Your task to perform on an android device: Open sound settings Image 0: 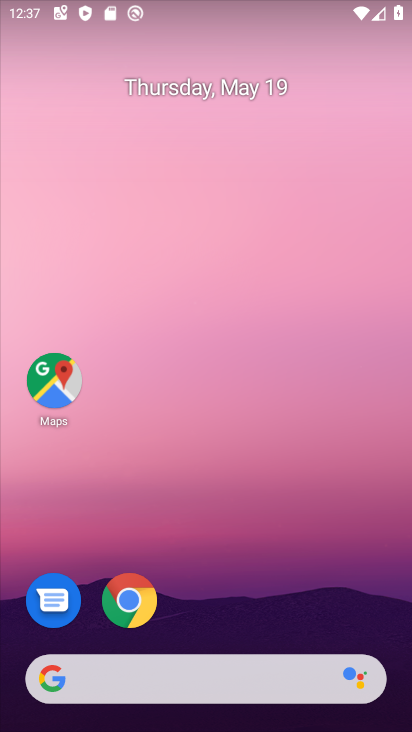
Step 0: drag from (313, 611) to (256, 157)
Your task to perform on an android device: Open sound settings Image 1: 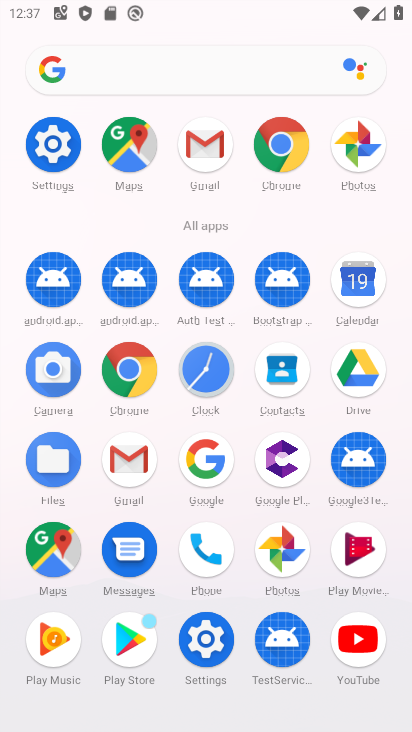
Step 1: click (35, 163)
Your task to perform on an android device: Open sound settings Image 2: 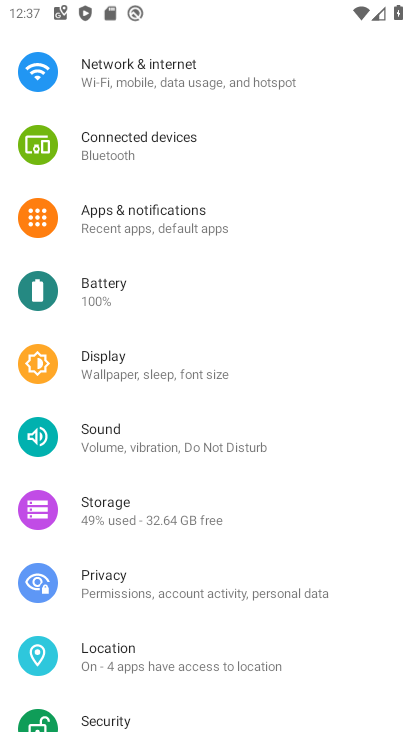
Step 2: click (148, 430)
Your task to perform on an android device: Open sound settings Image 3: 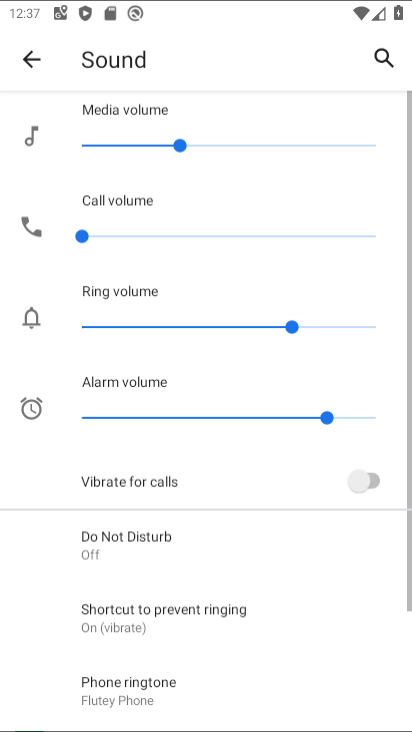
Step 3: task complete